Your task to perform on an android device: Go to notification settings Image 0: 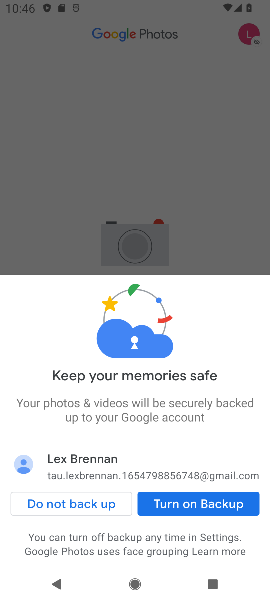
Step 0: press back button
Your task to perform on an android device: Go to notification settings Image 1: 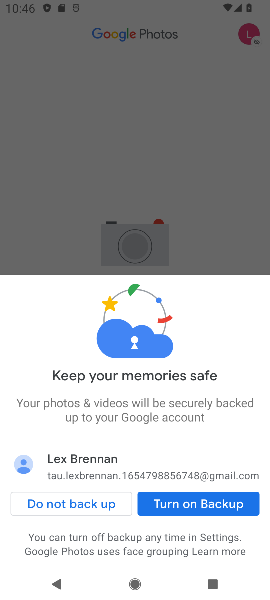
Step 1: drag from (180, 254) to (116, 57)
Your task to perform on an android device: Go to notification settings Image 2: 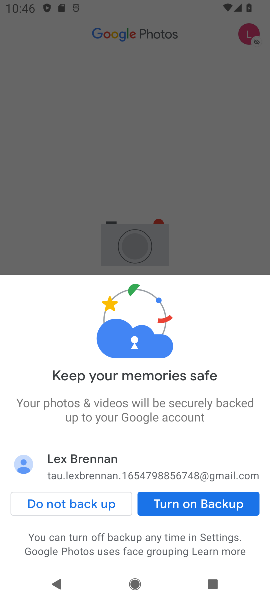
Step 2: drag from (165, 239) to (172, 18)
Your task to perform on an android device: Go to notification settings Image 3: 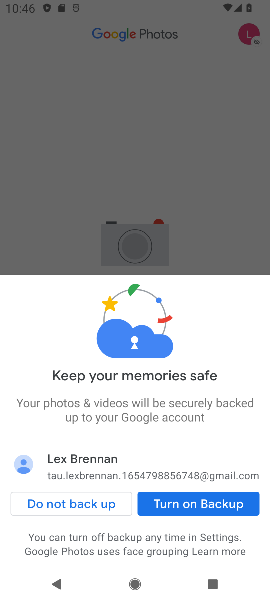
Step 3: press back button
Your task to perform on an android device: Go to notification settings Image 4: 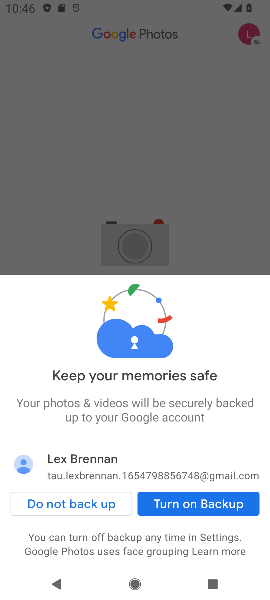
Step 4: drag from (173, 190) to (152, 77)
Your task to perform on an android device: Go to notification settings Image 5: 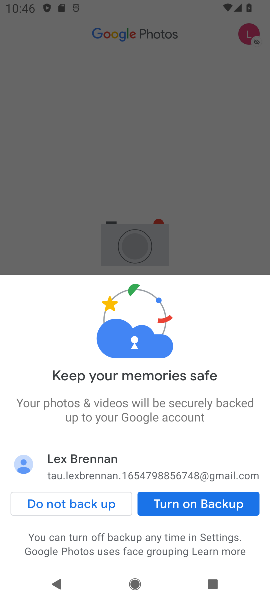
Step 5: drag from (176, 296) to (163, 94)
Your task to perform on an android device: Go to notification settings Image 6: 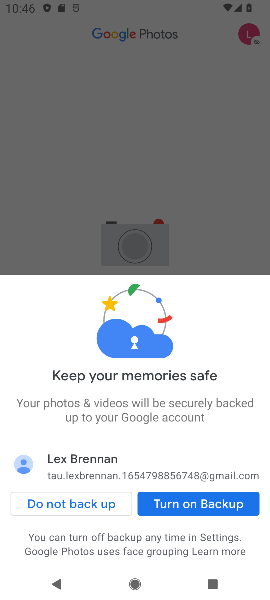
Step 6: drag from (176, 234) to (155, 40)
Your task to perform on an android device: Go to notification settings Image 7: 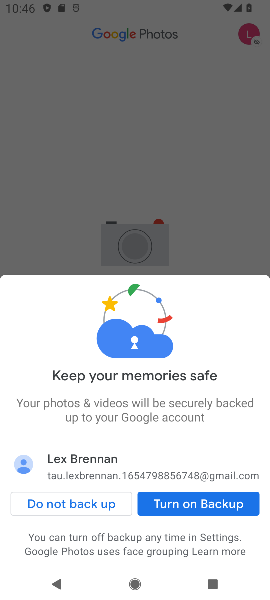
Step 7: drag from (186, 280) to (184, 61)
Your task to perform on an android device: Go to notification settings Image 8: 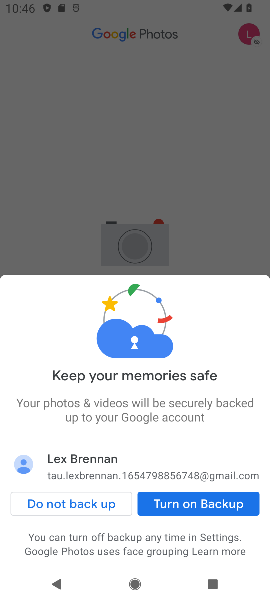
Step 8: press back button
Your task to perform on an android device: Go to notification settings Image 9: 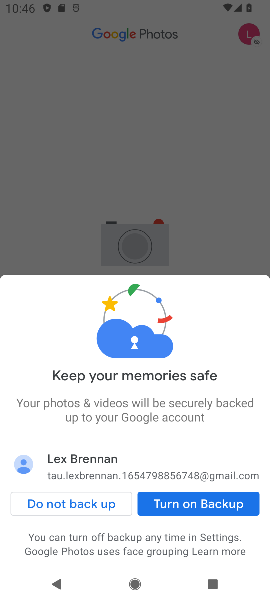
Step 9: press back button
Your task to perform on an android device: Go to notification settings Image 10: 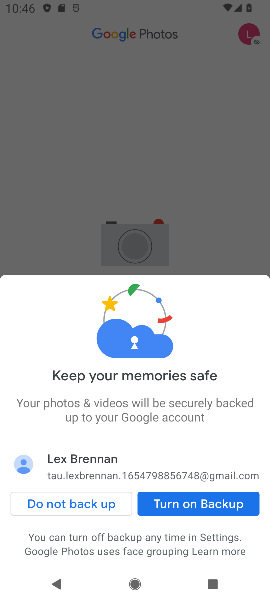
Step 10: press home button
Your task to perform on an android device: Go to notification settings Image 11: 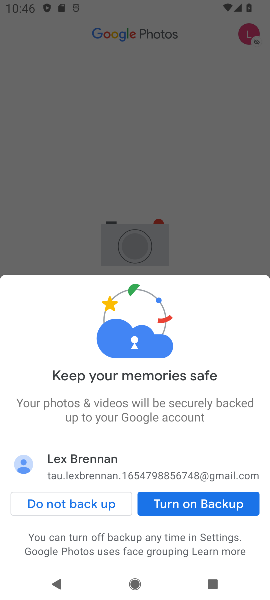
Step 11: press home button
Your task to perform on an android device: Go to notification settings Image 12: 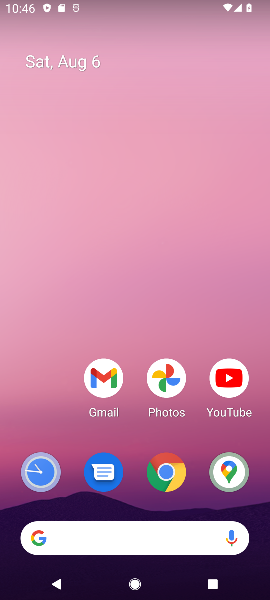
Step 12: drag from (132, 537) to (70, 213)
Your task to perform on an android device: Go to notification settings Image 13: 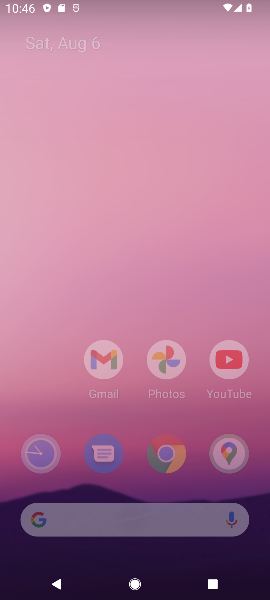
Step 13: drag from (138, 434) to (113, 245)
Your task to perform on an android device: Go to notification settings Image 14: 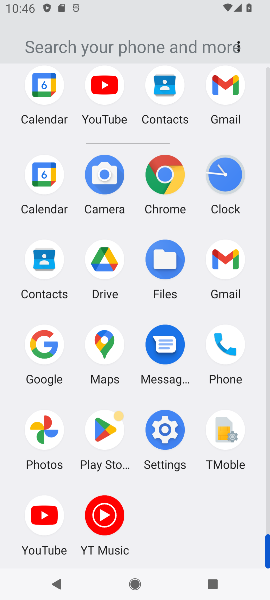
Step 14: drag from (160, 430) to (115, 266)
Your task to perform on an android device: Go to notification settings Image 15: 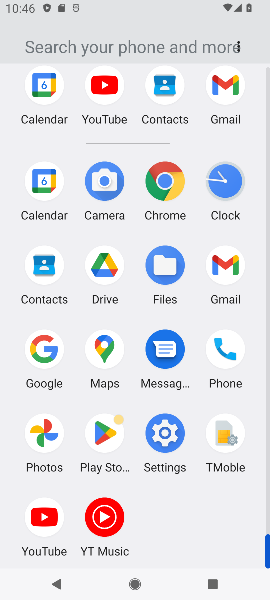
Step 15: click (160, 459)
Your task to perform on an android device: Go to notification settings Image 16: 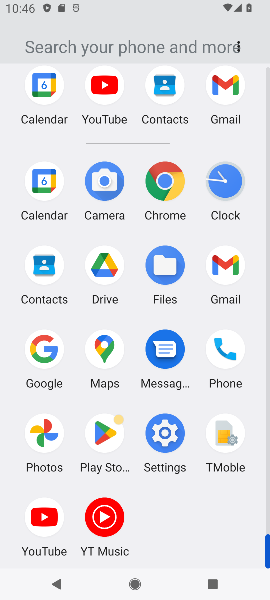
Step 16: click (161, 452)
Your task to perform on an android device: Go to notification settings Image 17: 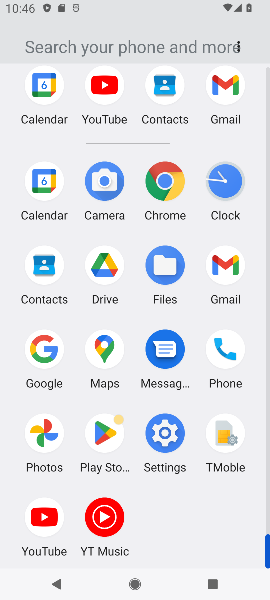
Step 17: click (161, 447)
Your task to perform on an android device: Go to notification settings Image 18: 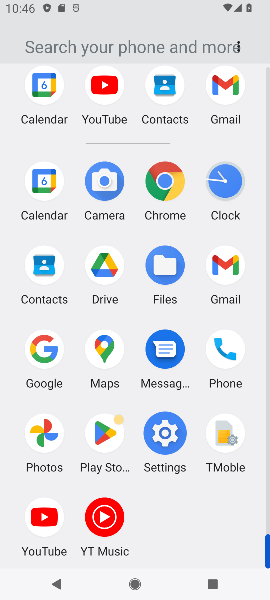
Step 18: click (165, 439)
Your task to perform on an android device: Go to notification settings Image 19: 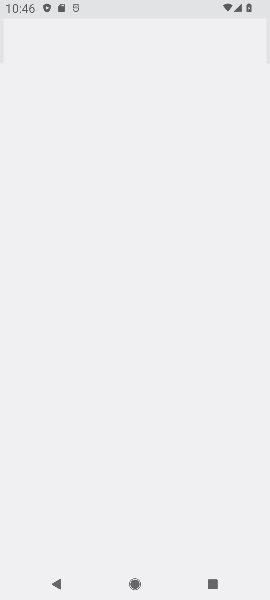
Step 19: click (165, 439)
Your task to perform on an android device: Go to notification settings Image 20: 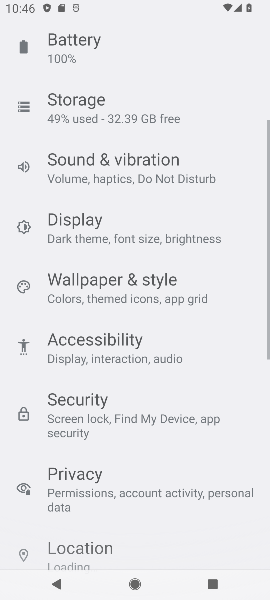
Step 20: click (167, 438)
Your task to perform on an android device: Go to notification settings Image 21: 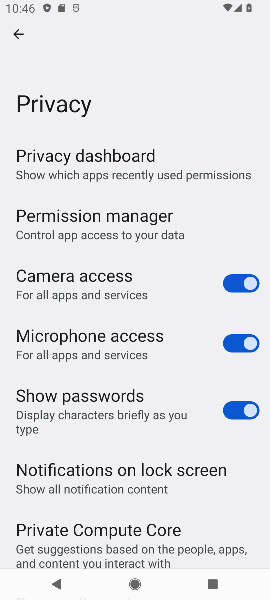
Step 21: click (19, 34)
Your task to perform on an android device: Go to notification settings Image 22: 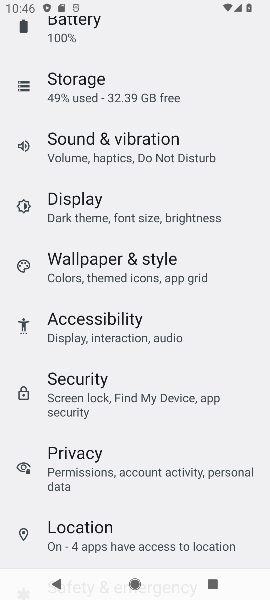
Step 22: drag from (105, 159) to (143, 356)
Your task to perform on an android device: Go to notification settings Image 23: 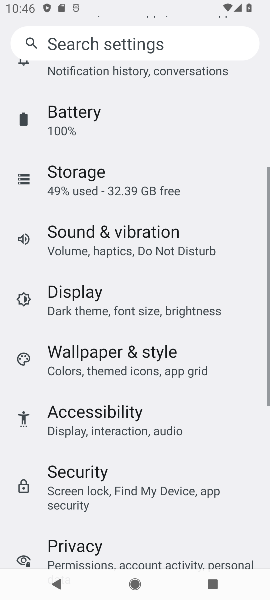
Step 23: drag from (135, 311) to (157, 409)
Your task to perform on an android device: Go to notification settings Image 24: 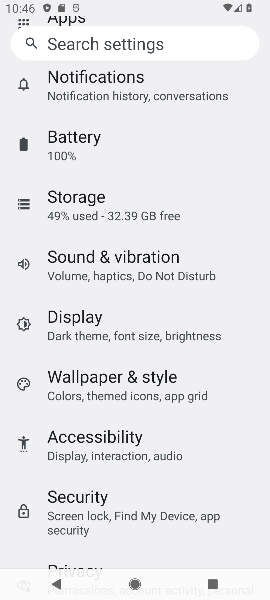
Step 24: click (84, 97)
Your task to perform on an android device: Go to notification settings Image 25: 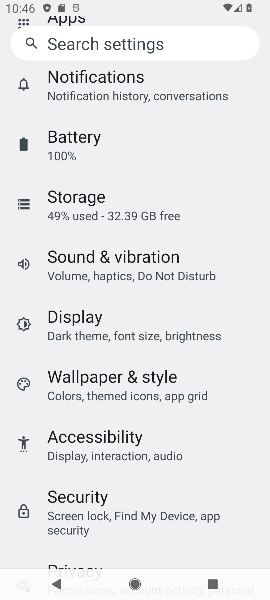
Step 25: click (84, 94)
Your task to perform on an android device: Go to notification settings Image 26: 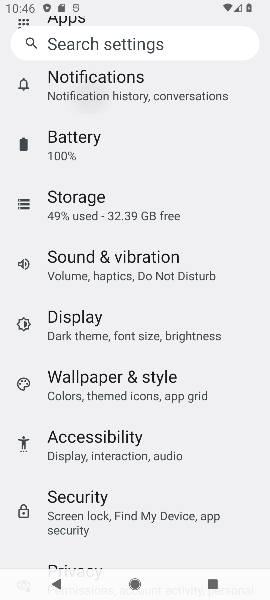
Step 26: click (84, 94)
Your task to perform on an android device: Go to notification settings Image 27: 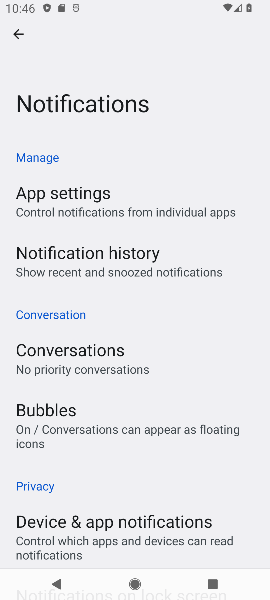
Step 27: task complete